Your task to perform on an android device: search for starred emails in the gmail app Image 0: 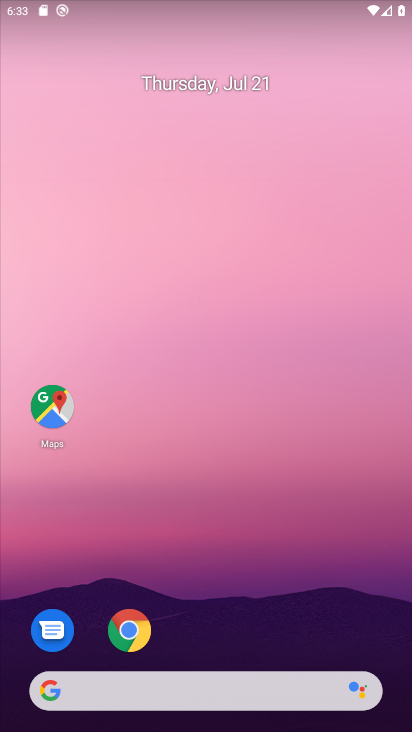
Step 0: drag from (178, 697) to (243, 244)
Your task to perform on an android device: search for starred emails in the gmail app Image 1: 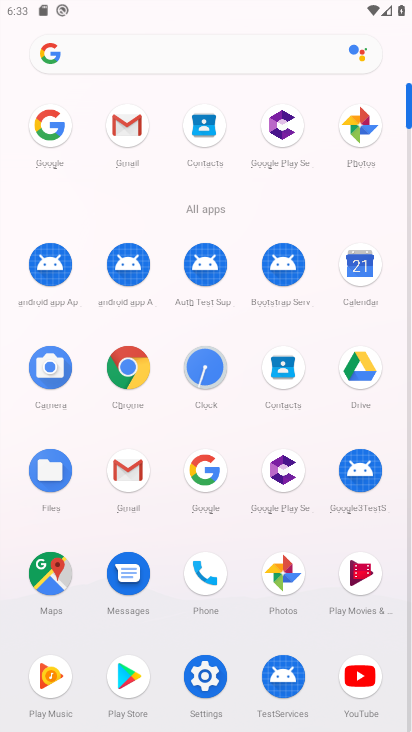
Step 1: click (126, 125)
Your task to perform on an android device: search for starred emails in the gmail app Image 2: 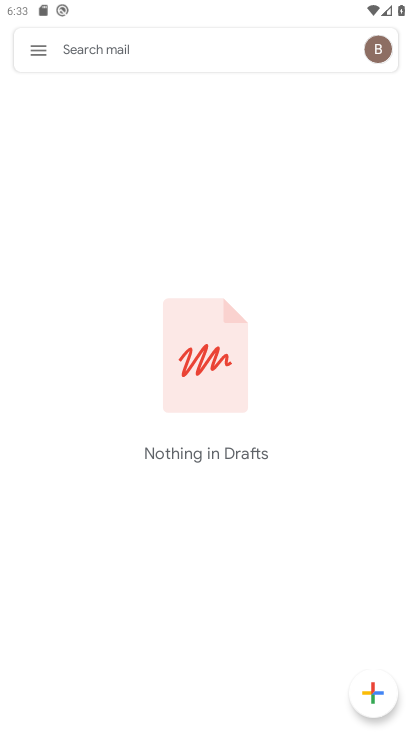
Step 2: click (37, 54)
Your task to perform on an android device: search for starred emails in the gmail app Image 3: 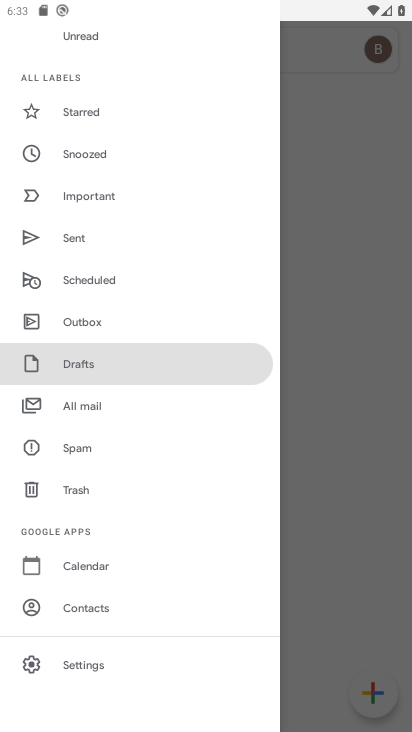
Step 3: click (82, 114)
Your task to perform on an android device: search for starred emails in the gmail app Image 4: 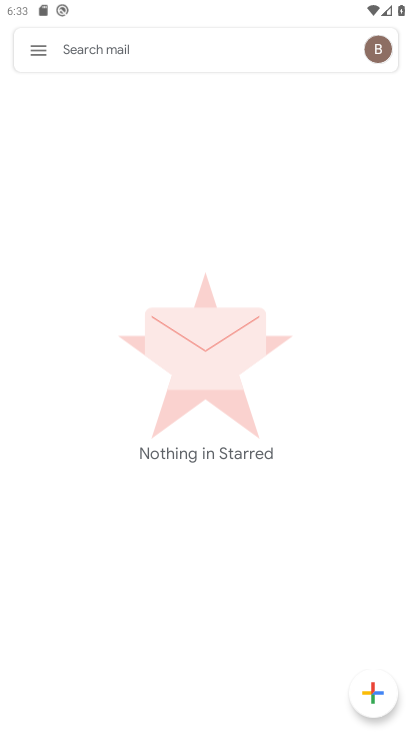
Step 4: click (39, 49)
Your task to perform on an android device: search for starred emails in the gmail app Image 5: 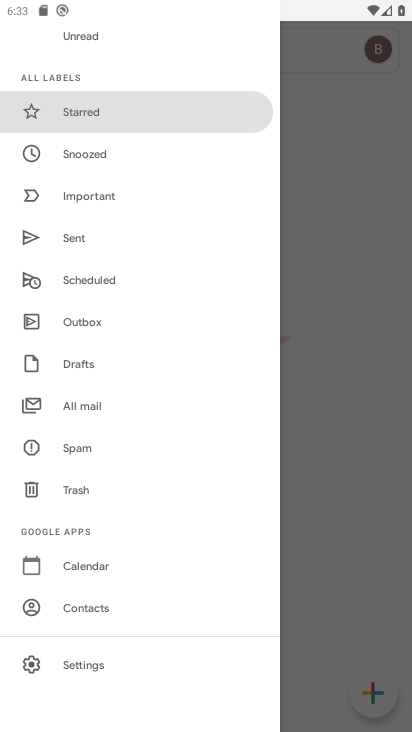
Step 5: click (70, 151)
Your task to perform on an android device: search for starred emails in the gmail app Image 6: 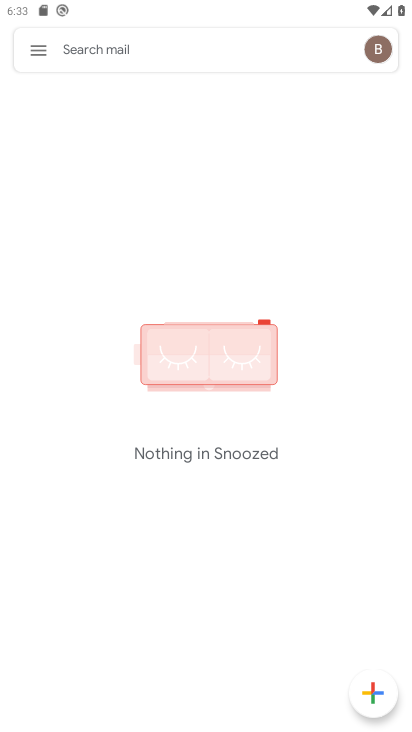
Step 6: click (39, 50)
Your task to perform on an android device: search for starred emails in the gmail app Image 7: 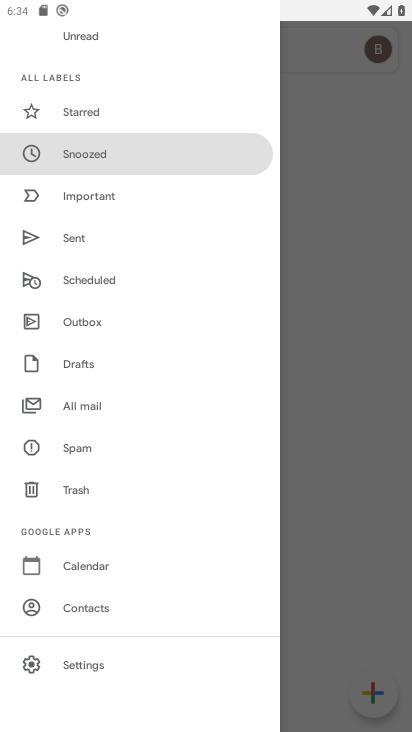
Step 7: click (59, 198)
Your task to perform on an android device: search for starred emails in the gmail app Image 8: 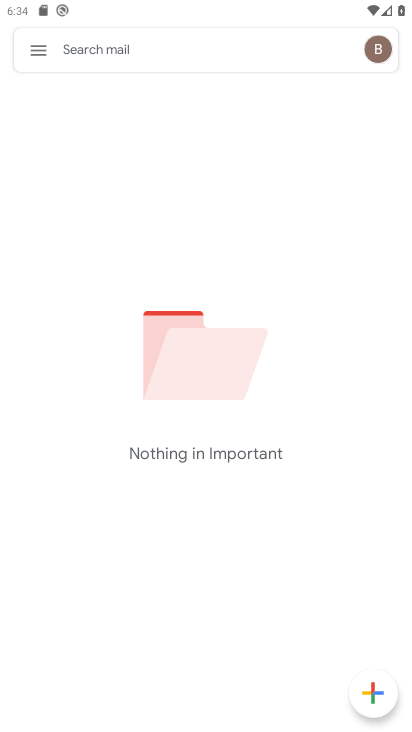
Step 8: click (39, 53)
Your task to perform on an android device: search for starred emails in the gmail app Image 9: 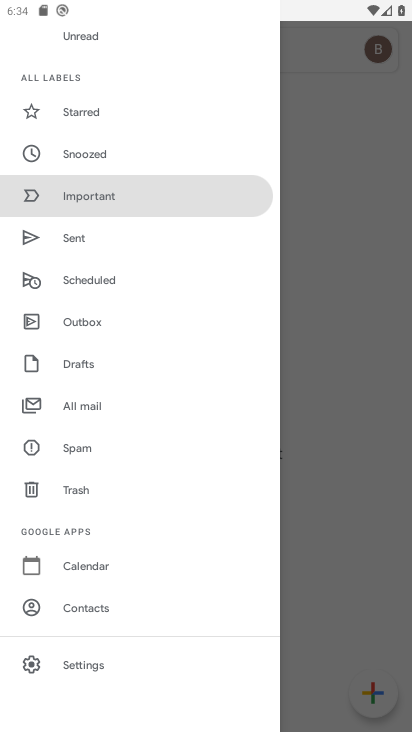
Step 9: click (81, 244)
Your task to perform on an android device: search for starred emails in the gmail app Image 10: 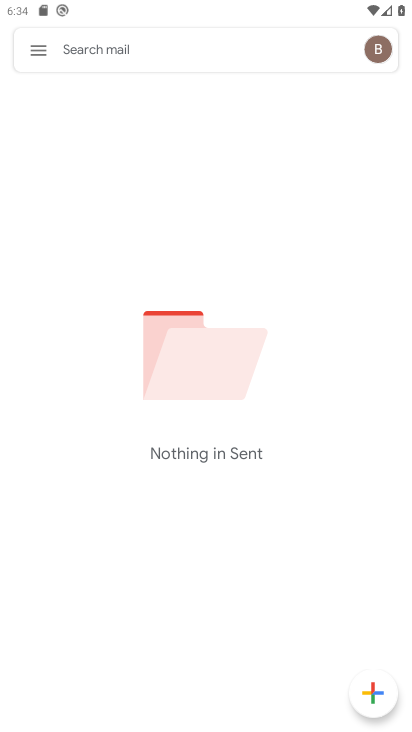
Step 10: click (42, 51)
Your task to perform on an android device: search for starred emails in the gmail app Image 11: 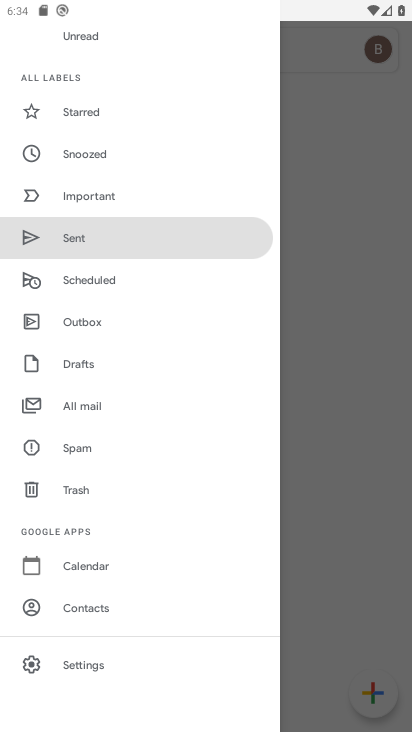
Step 11: click (99, 281)
Your task to perform on an android device: search for starred emails in the gmail app Image 12: 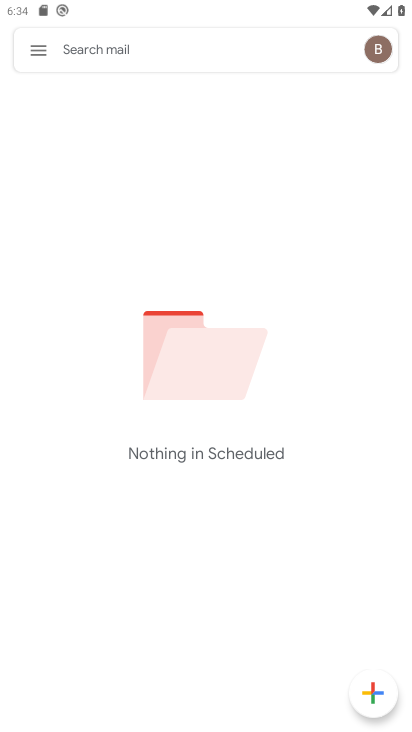
Step 12: click (42, 56)
Your task to perform on an android device: search for starred emails in the gmail app Image 13: 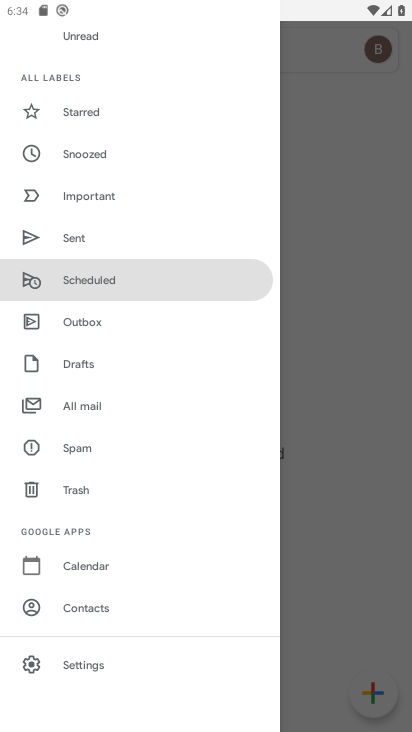
Step 13: click (70, 317)
Your task to perform on an android device: search for starred emails in the gmail app Image 14: 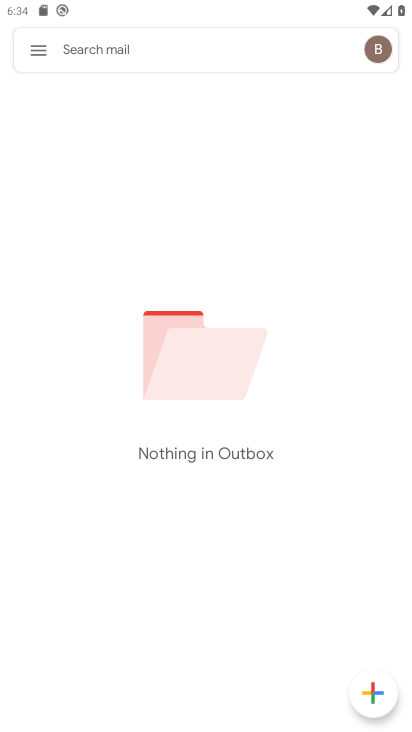
Step 14: click (38, 51)
Your task to perform on an android device: search for starred emails in the gmail app Image 15: 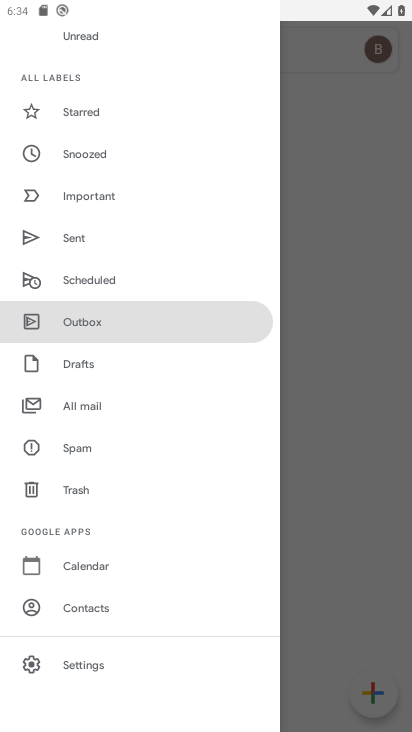
Step 15: click (80, 360)
Your task to perform on an android device: search for starred emails in the gmail app Image 16: 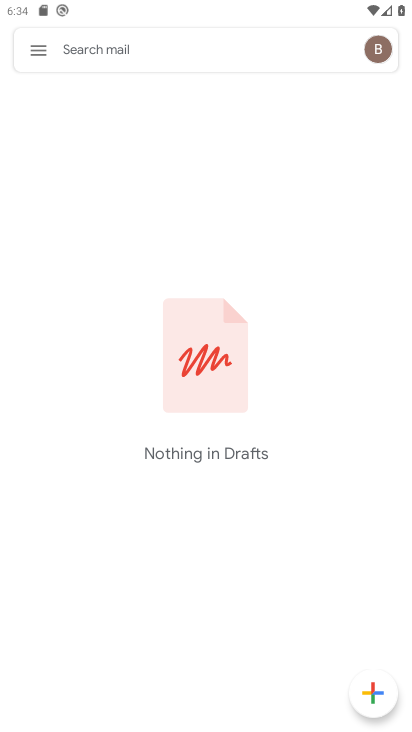
Step 16: click (39, 52)
Your task to perform on an android device: search for starred emails in the gmail app Image 17: 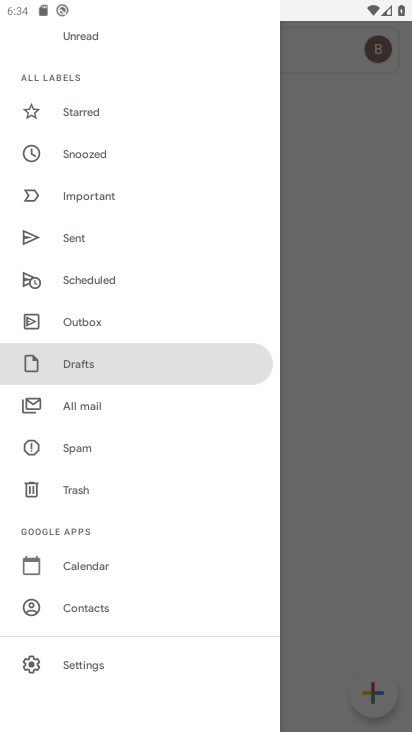
Step 17: click (75, 401)
Your task to perform on an android device: search for starred emails in the gmail app Image 18: 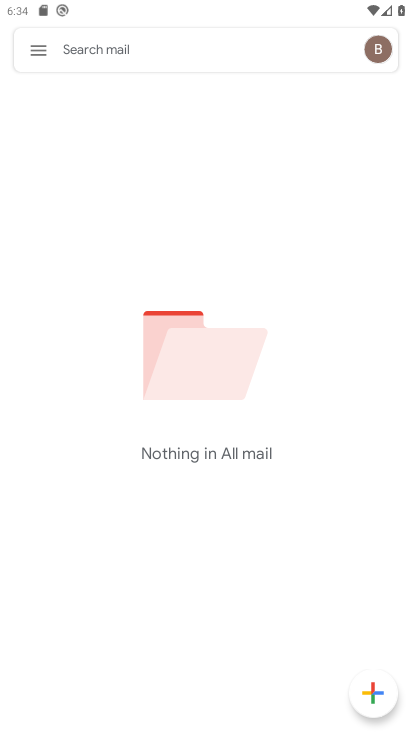
Step 18: click (40, 51)
Your task to perform on an android device: search for starred emails in the gmail app Image 19: 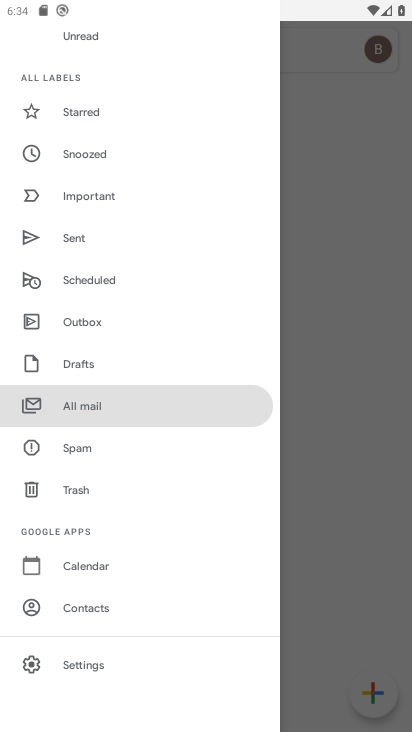
Step 19: click (88, 456)
Your task to perform on an android device: search for starred emails in the gmail app Image 20: 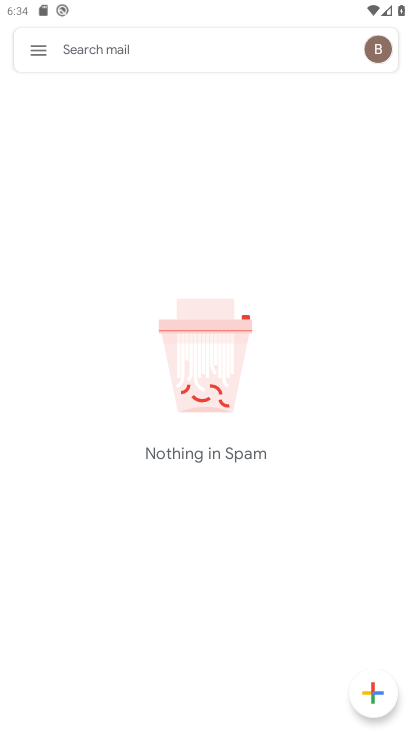
Step 20: click (38, 51)
Your task to perform on an android device: search for starred emails in the gmail app Image 21: 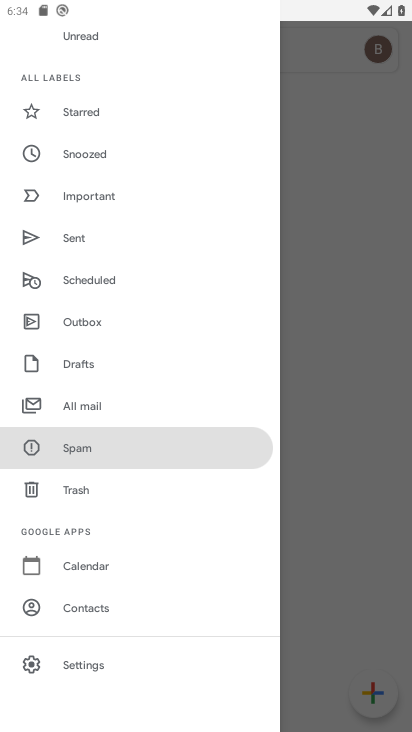
Step 21: click (80, 499)
Your task to perform on an android device: search for starred emails in the gmail app Image 22: 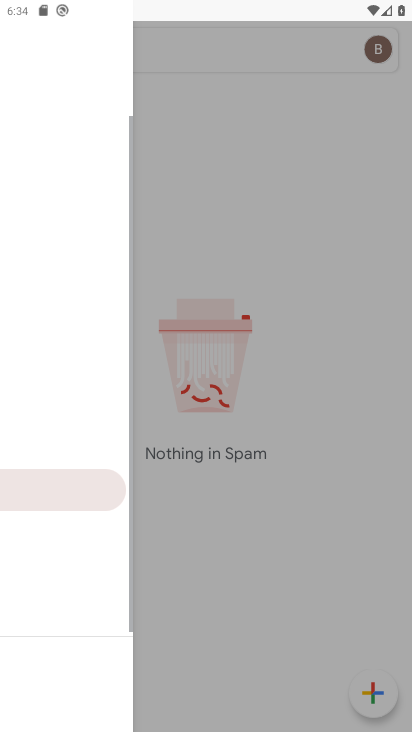
Step 22: click (80, 499)
Your task to perform on an android device: search for starred emails in the gmail app Image 23: 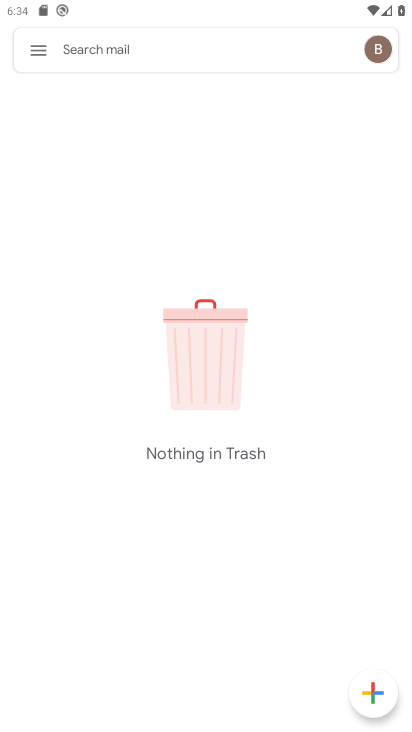
Step 23: click (40, 46)
Your task to perform on an android device: search for starred emails in the gmail app Image 24: 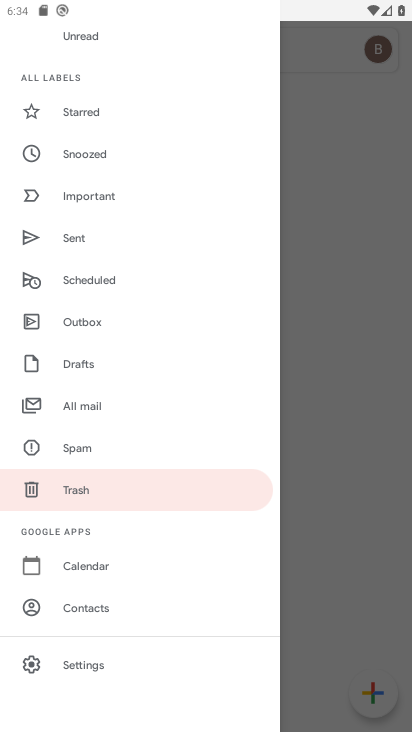
Step 24: task complete